Your task to perform on an android device: Go to Wikipedia Image 0: 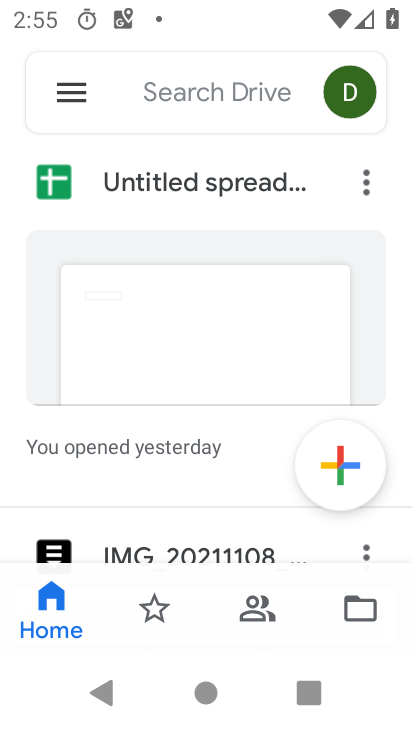
Step 0: press home button
Your task to perform on an android device: Go to Wikipedia Image 1: 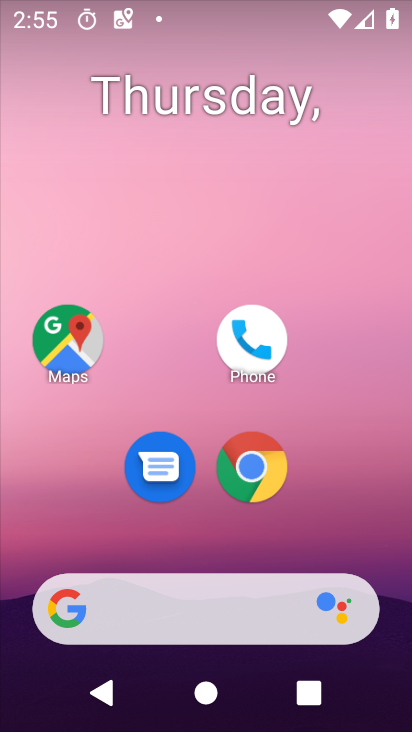
Step 1: drag from (187, 573) to (191, 89)
Your task to perform on an android device: Go to Wikipedia Image 2: 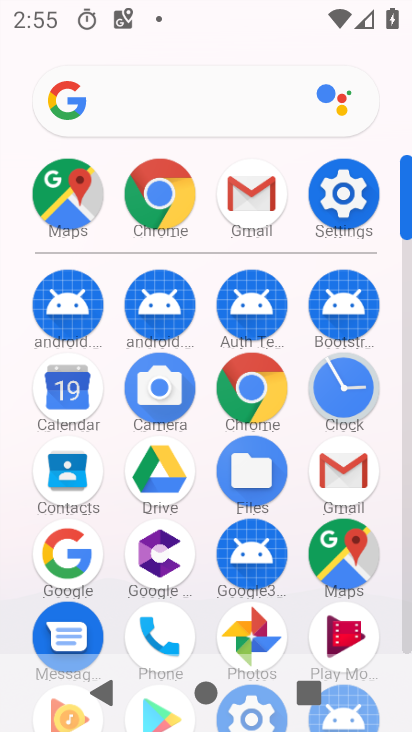
Step 2: click (147, 191)
Your task to perform on an android device: Go to Wikipedia Image 3: 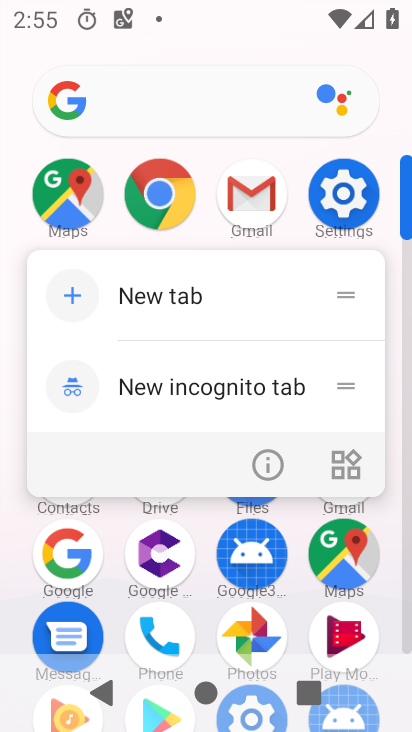
Step 3: click (271, 464)
Your task to perform on an android device: Go to Wikipedia Image 4: 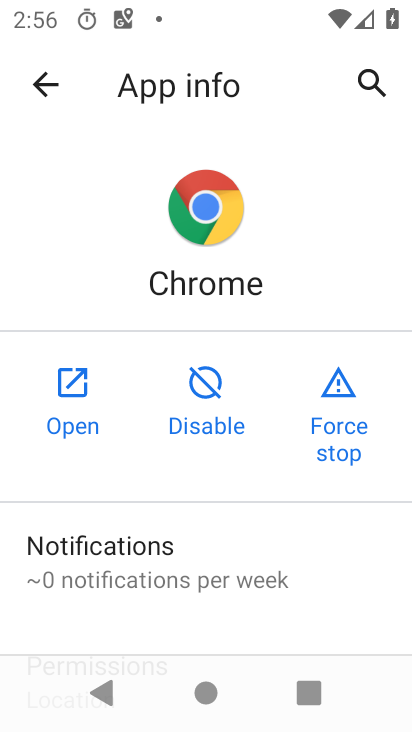
Step 4: click (78, 422)
Your task to perform on an android device: Go to Wikipedia Image 5: 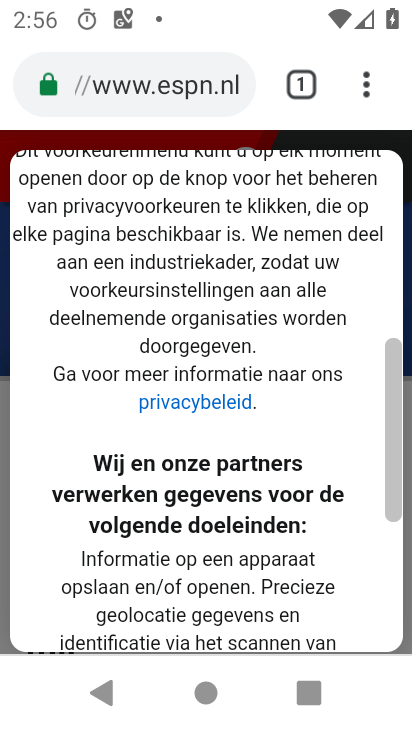
Step 5: drag from (154, 492) to (375, 724)
Your task to perform on an android device: Go to Wikipedia Image 6: 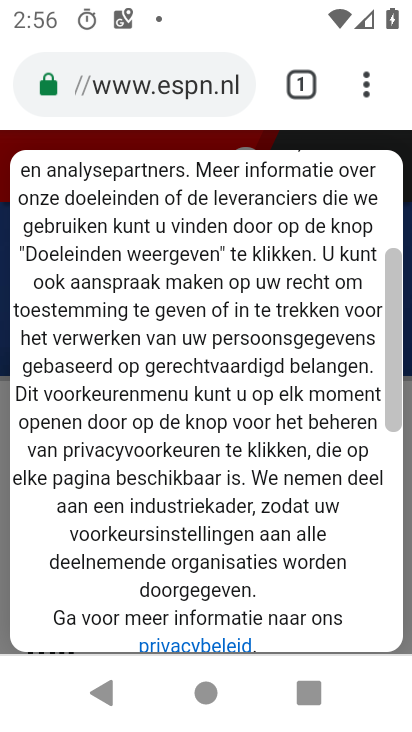
Step 6: click (315, 82)
Your task to perform on an android device: Go to Wikipedia Image 7: 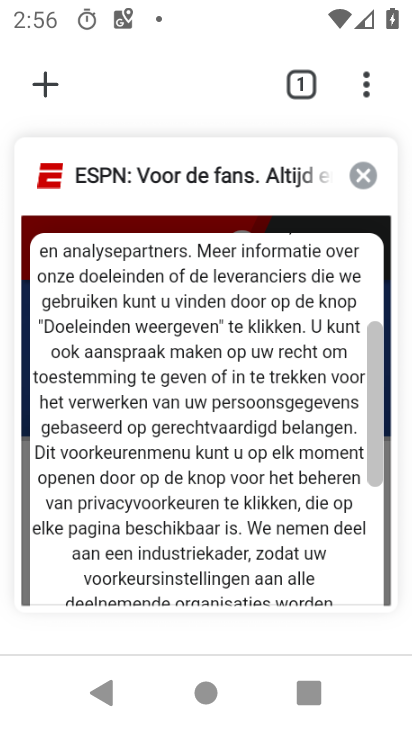
Step 7: click (43, 77)
Your task to perform on an android device: Go to Wikipedia Image 8: 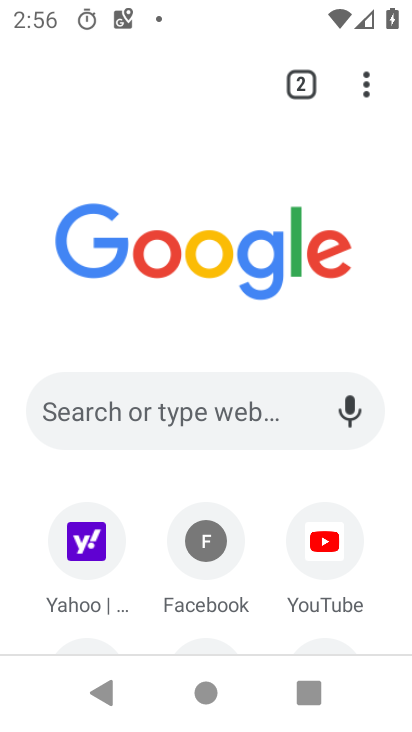
Step 8: drag from (251, 583) to (257, 350)
Your task to perform on an android device: Go to Wikipedia Image 9: 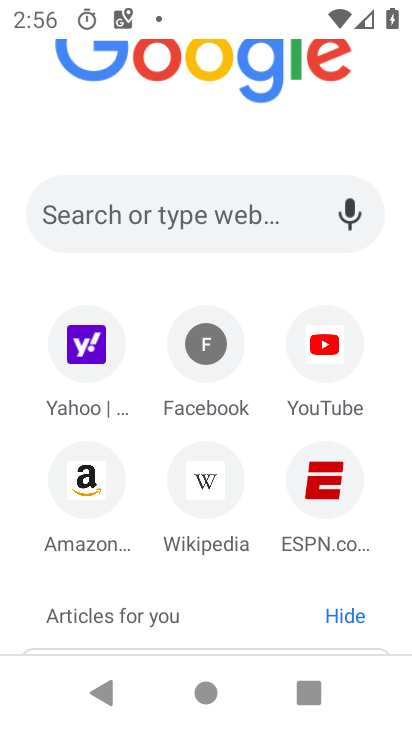
Step 9: click (200, 499)
Your task to perform on an android device: Go to Wikipedia Image 10: 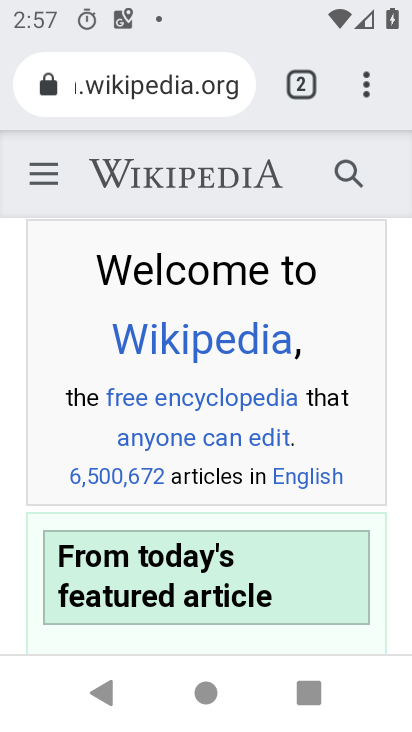
Step 10: task complete